Your task to perform on an android device: What's the weather going to be this weekend? Image 0: 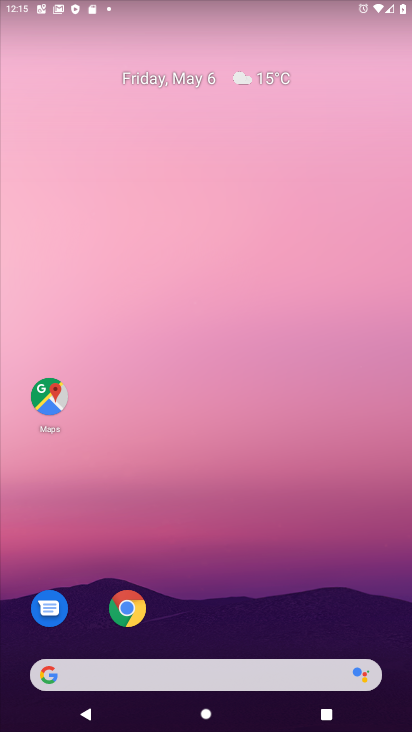
Step 0: drag from (224, 623) to (240, 179)
Your task to perform on an android device: What's the weather going to be this weekend? Image 1: 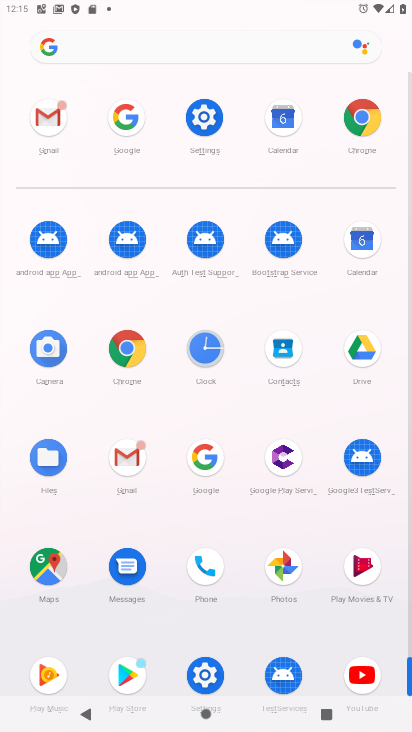
Step 1: click (371, 105)
Your task to perform on an android device: What's the weather going to be this weekend? Image 2: 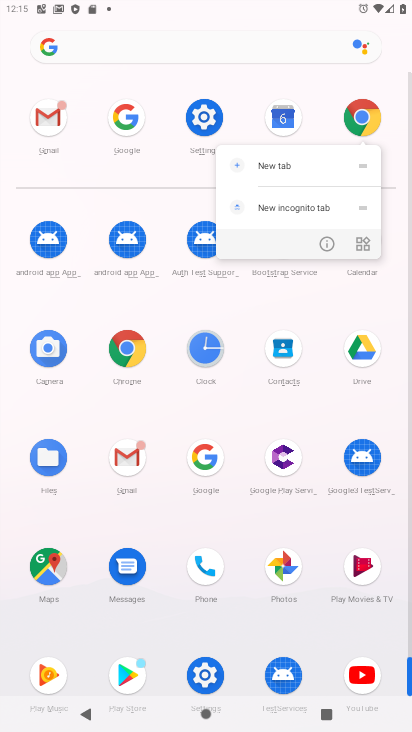
Step 2: click (365, 117)
Your task to perform on an android device: What's the weather going to be this weekend? Image 3: 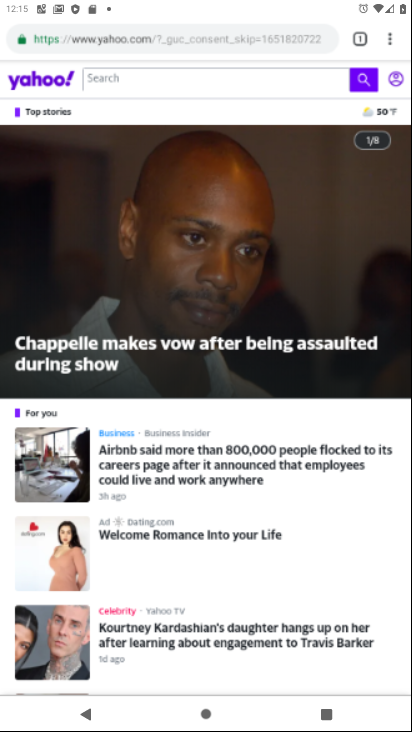
Step 3: click (184, 42)
Your task to perform on an android device: What's the weather going to be this weekend? Image 4: 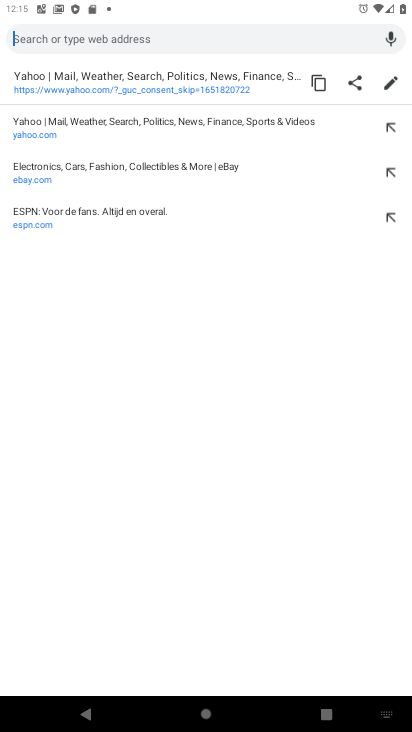
Step 4: type "whats the weather going to be this weekeend"
Your task to perform on an android device: What's the weather going to be this weekend? Image 5: 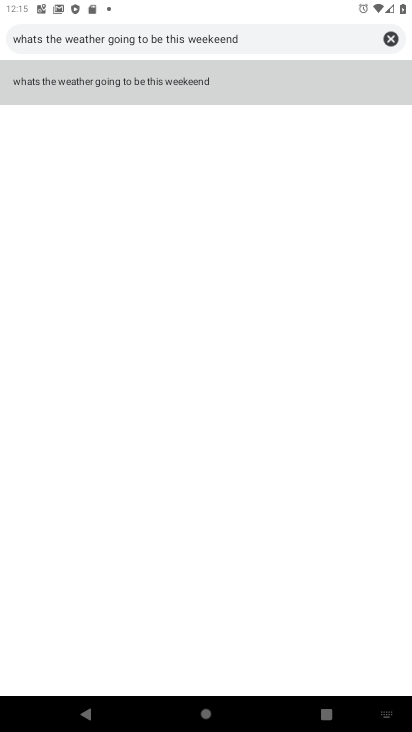
Step 5: click (81, 85)
Your task to perform on an android device: What's the weather going to be this weekend? Image 6: 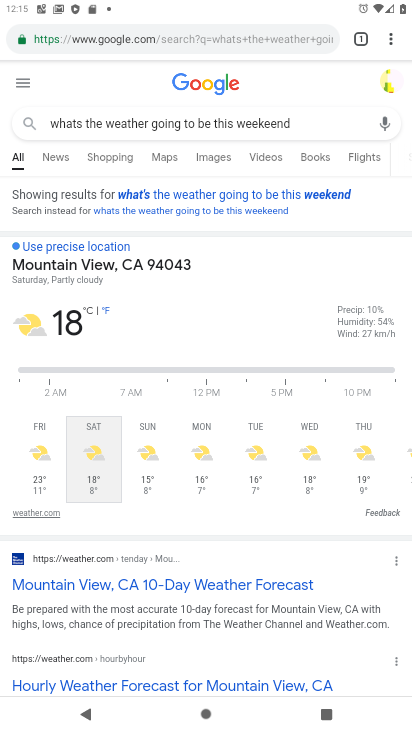
Step 6: click (343, 196)
Your task to perform on an android device: What's the weather going to be this weekend? Image 7: 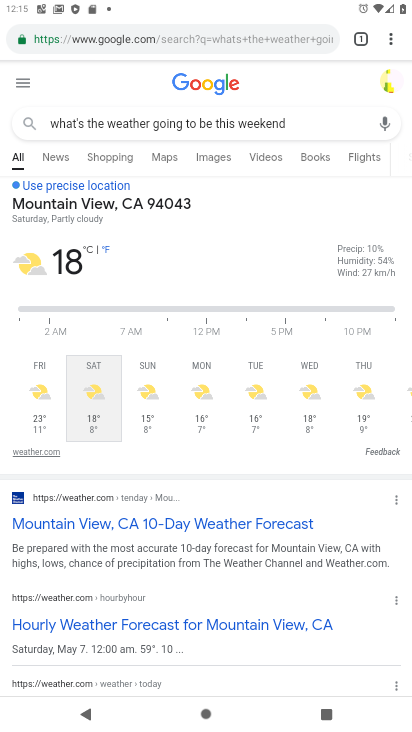
Step 7: task complete